Your task to perform on an android device: When is my next meeting? Image 0: 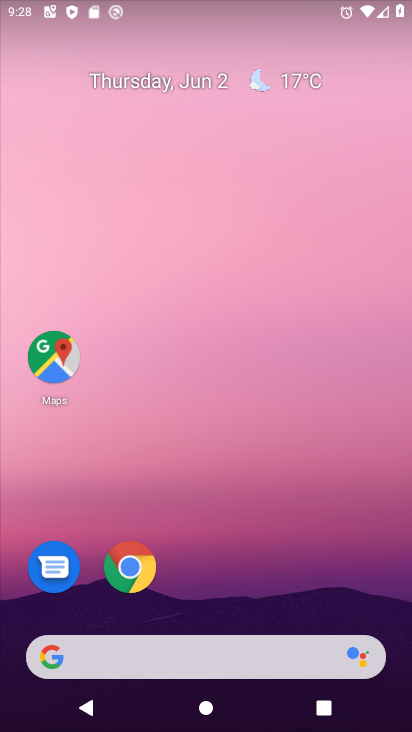
Step 0: drag from (245, 632) to (301, 211)
Your task to perform on an android device: When is my next meeting? Image 1: 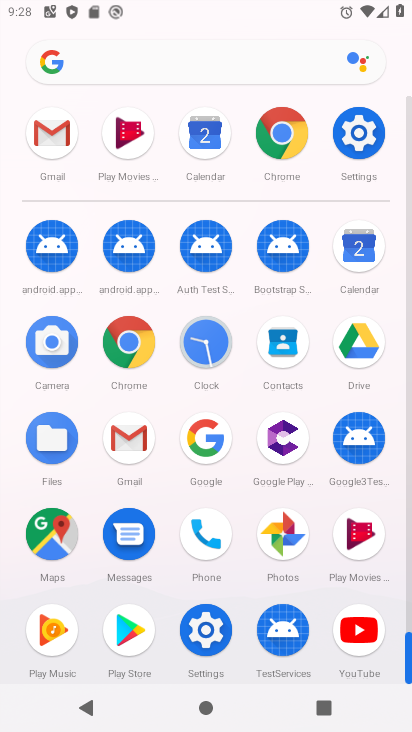
Step 1: click (364, 244)
Your task to perform on an android device: When is my next meeting? Image 2: 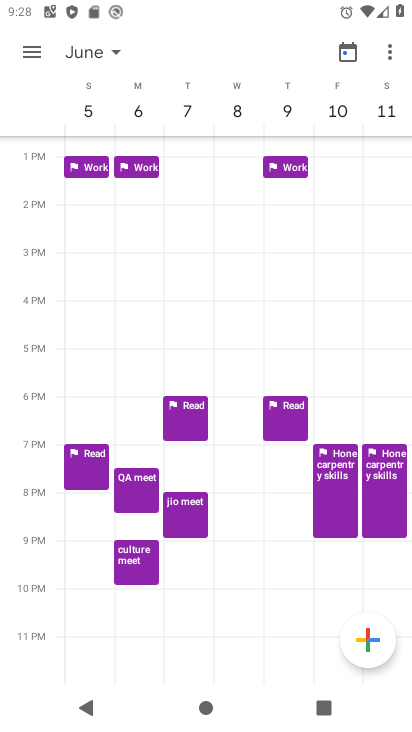
Step 2: click (27, 52)
Your task to perform on an android device: When is my next meeting? Image 3: 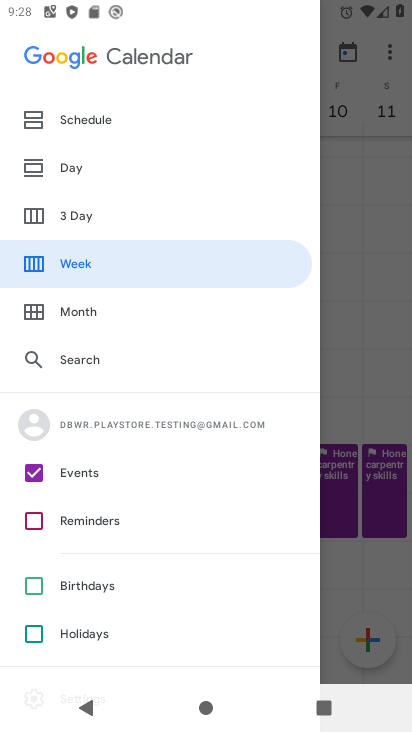
Step 3: click (102, 134)
Your task to perform on an android device: When is my next meeting? Image 4: 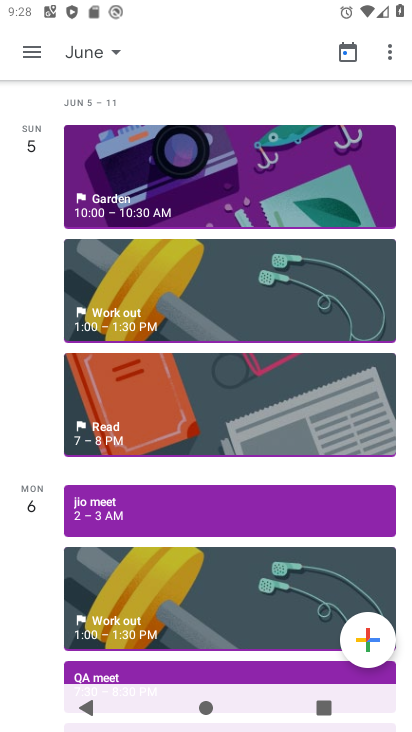
Step 4: drag from (161, 533) to (180, 412)
Your task to perform on an android device: When is my next meeting? Image 5: 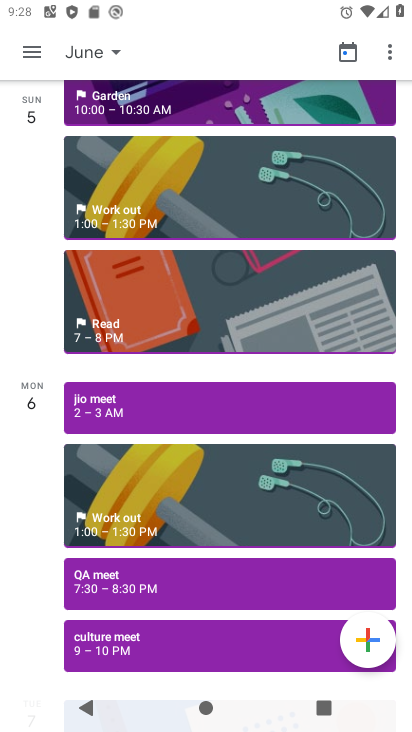
Step 5: click (142, 414)
Your task to perform on an android device: When is my next meeting? Image 6: 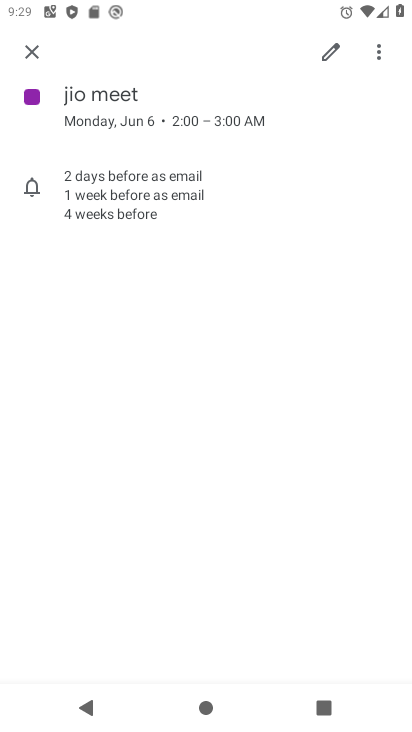
Step 6: task complete